Your task to perform on an android device: turn off sleep mode Image 0: 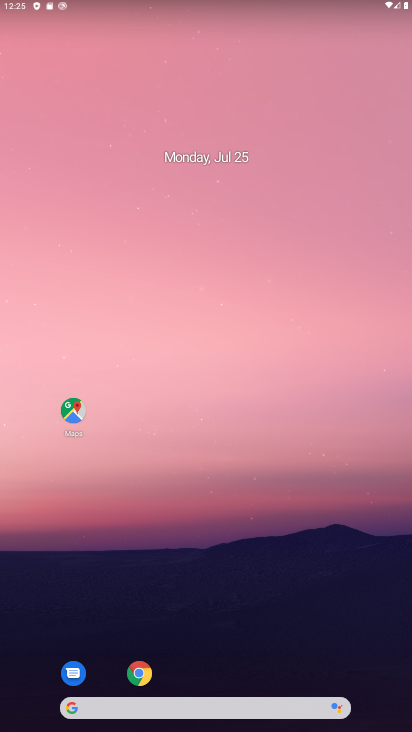
Step 0: drag from (179, 727) to (209, 120)
Your task to perform on an android device: turn off sleep mode Image 1: 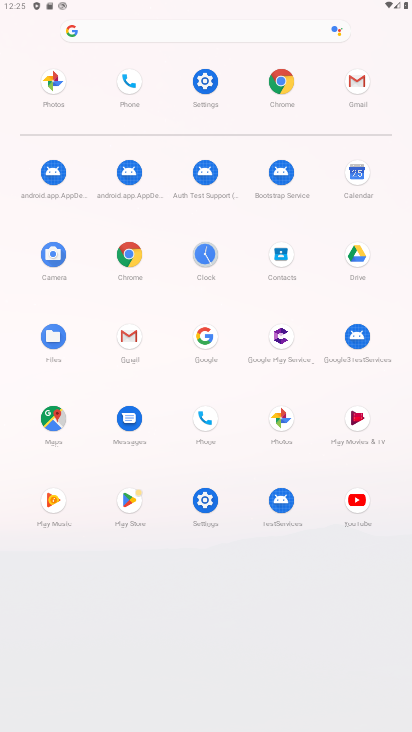
Step 1: click (213, 88)
Your task to perform on an android device: turn off sleep mode Image 2: 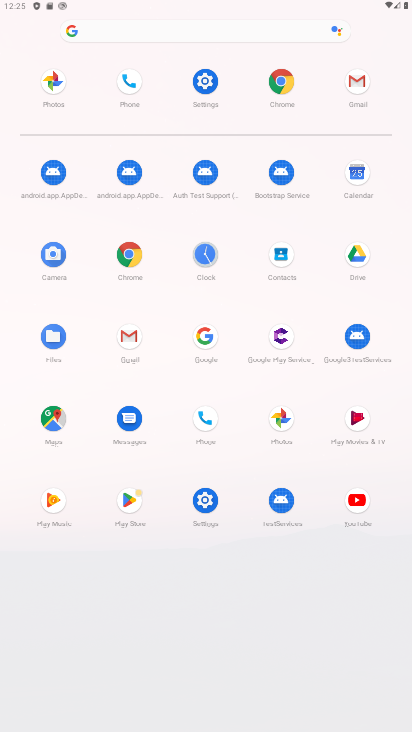
Step 2: click (213, 88)
Your task to perform on an android device: turn off sleep mode Image 3: 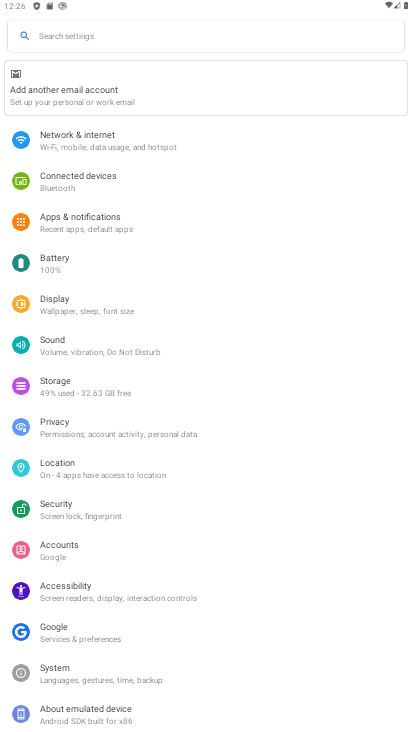
Step 3: click (131, 311)
Your task to perform on an android device: turn off sleep mode Image 4: 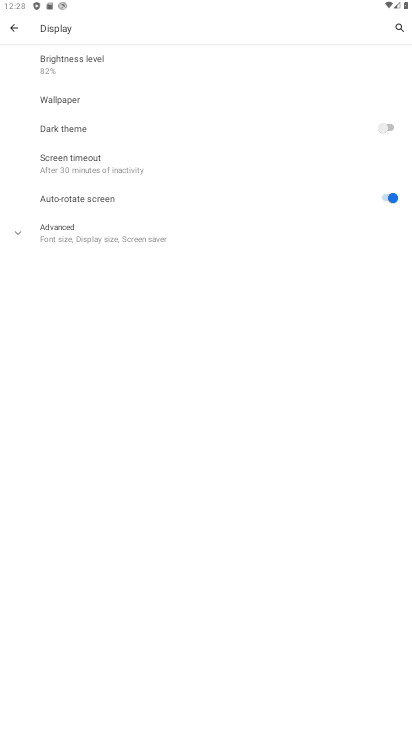
Step 4: task complete